Your task to perform on an android device: Search for sushi restaurants on Maps Image 0: 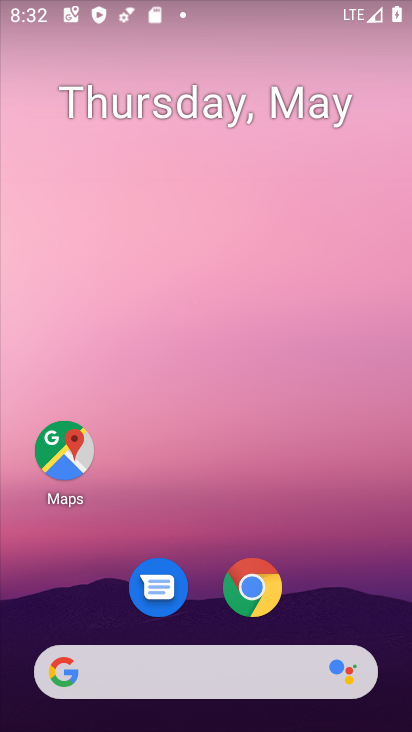
Step 0: click (71, 450)
Your task to perform on an android device: Search for sushi restaurants on Maps Image 1: 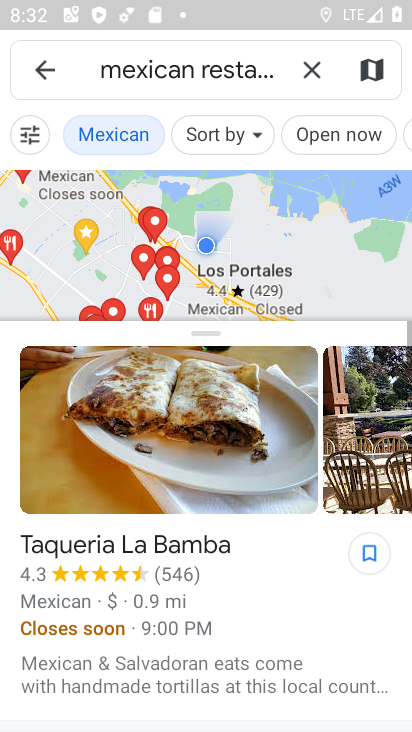
Step 1: click (250, 66)
Your task to perform on an android device: Search for sushi restaurants on Maps Image 2: 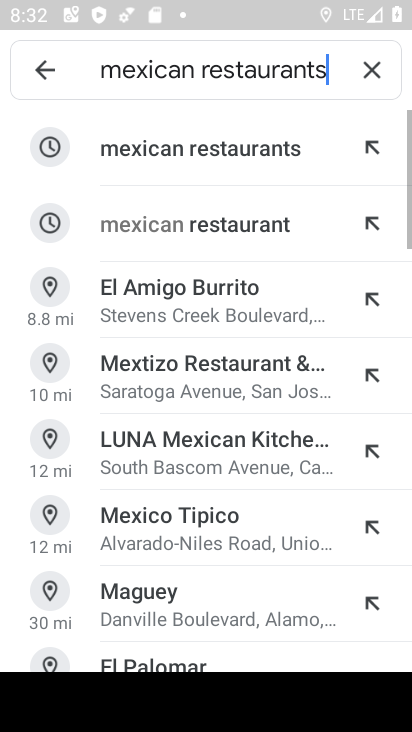
Step 2: click (361, 71)
Your task to perform on an android device: Search for sushi restaurants on Maps Image 3: 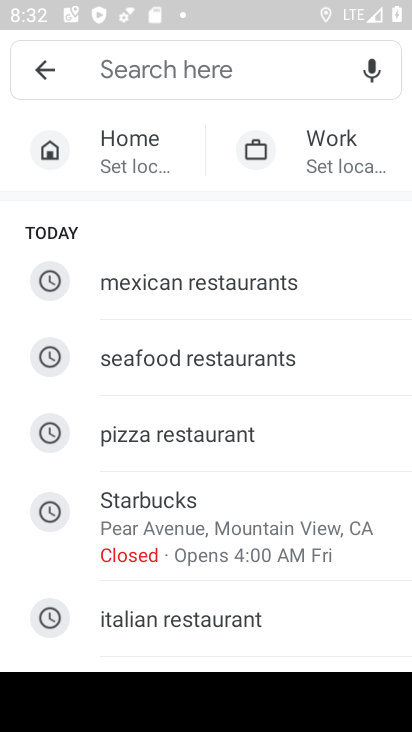
Step 3: type "sushi restaurants"
Your task to perform on an android device: Search for sushi restaurants on Maps Image 4: 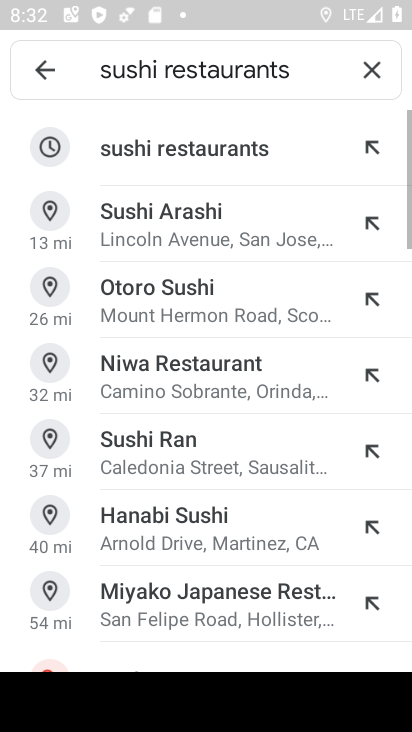
Step 4: click (256, 156)
Your task to perform on an android device: Search for sushi restaurants on Maps Image 5: 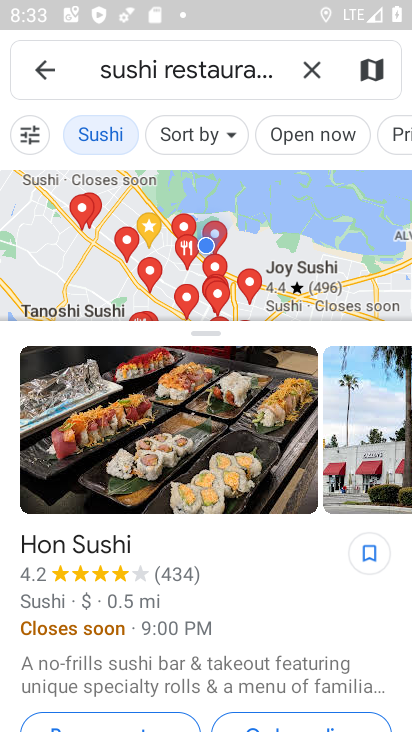
Step 5: task complete